Your task to perform on an android device: toggle translation in the chrome app Image 0: 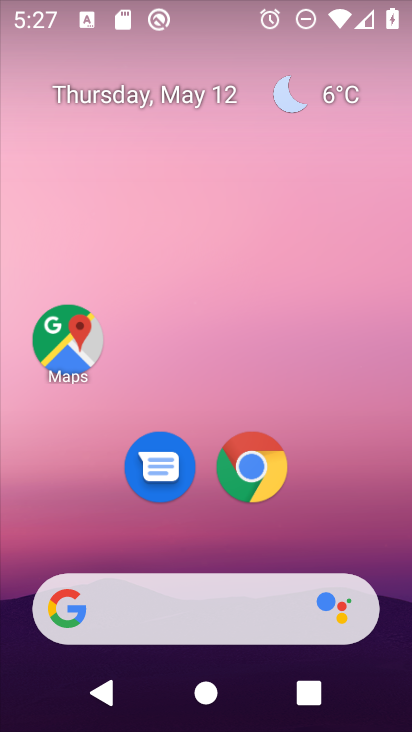
Step 0: drag from (226, 557) to (290, 168)
Your task to perform on an android device: toggle translation in the chrome app Image 1: 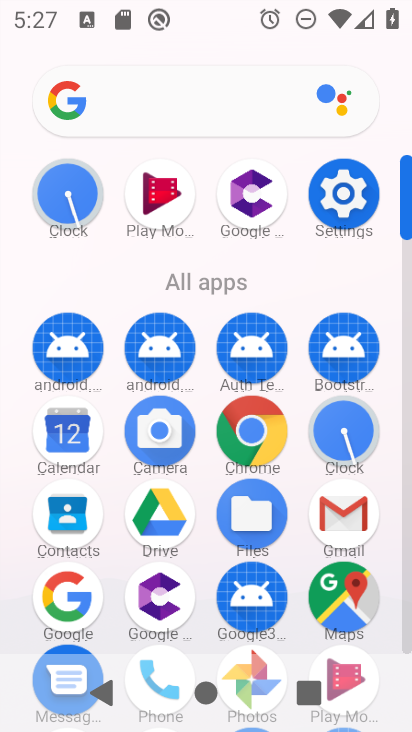
Step 1: click (250, 444)
Your task to perform on an android device: toggle translation in the chrome app Image 2: 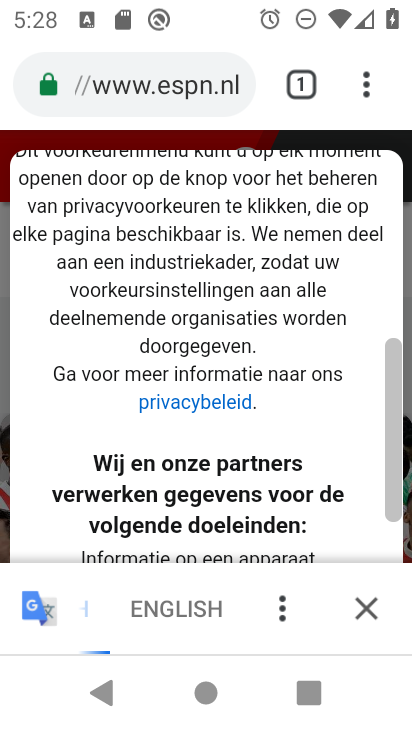
Step 2: drag from (358, 80) to (163, 540)
Your task to perform on an android device: toggle translation in the chrome app Image 3: 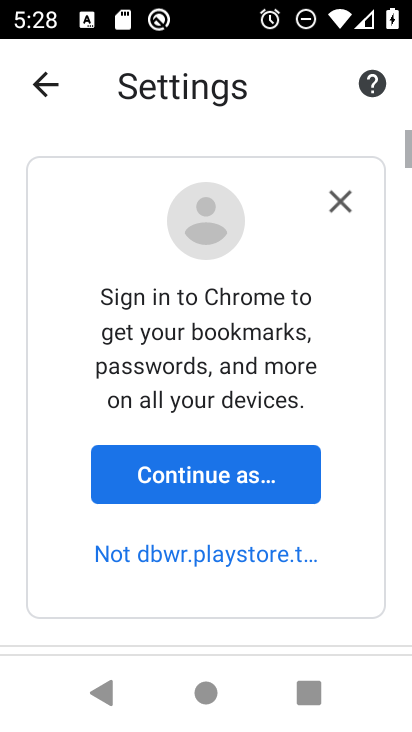
Step 3: drag from (239, 608) to (168, 100)
Your task to perform on an android device: toggle translation in the chrome app Image 4: 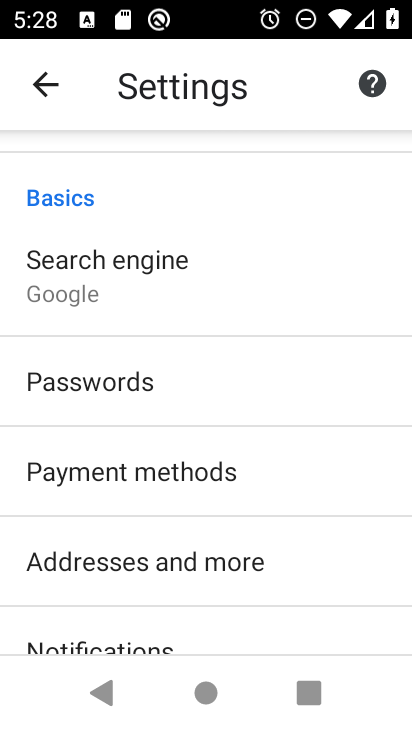
Step 4: drag from (202, 638) to (221, 225)
Your task to perform on an android device: toggle translation in the chrome app Image 5: 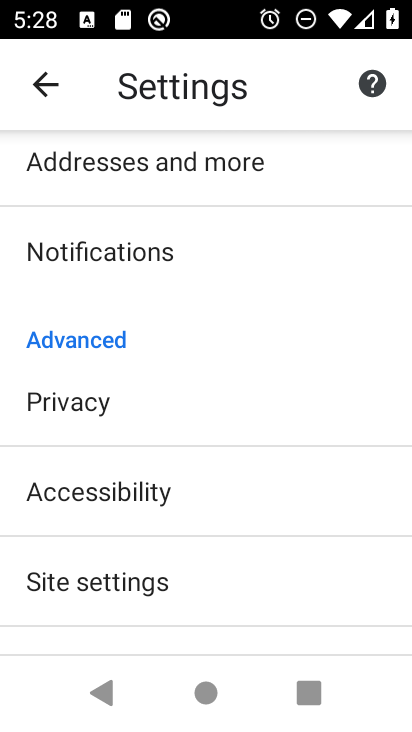
Step 5: drag from (185, 604) to (194, 334)
Your task to perform on an android device: toggle translation in the chrome app Image 6: 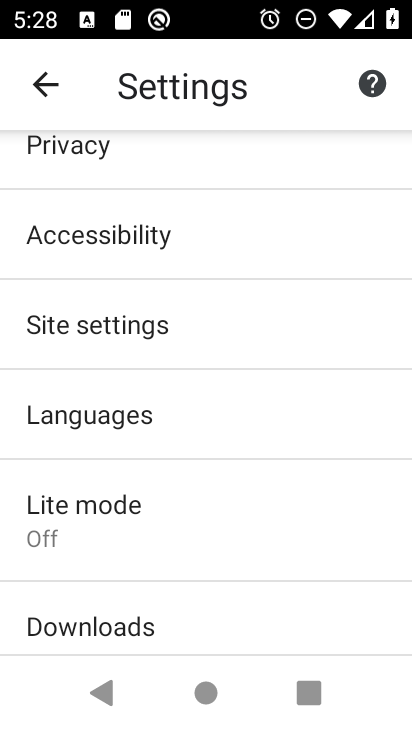
Step 6: click (137, 408)
Your task to perform on an android device: toggle translation in the chrome app Image 7: 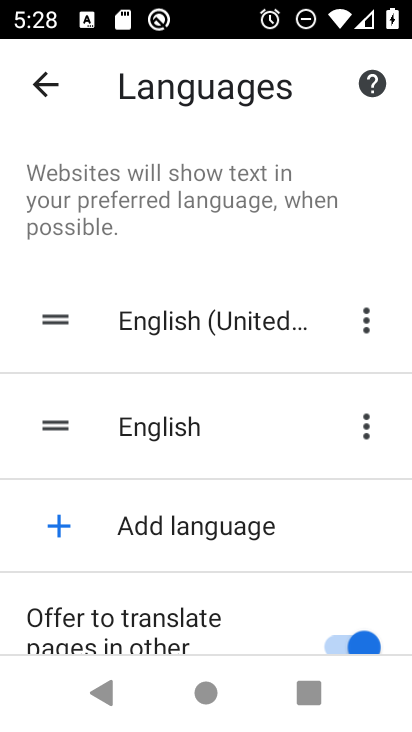
Step 7: click (339, 643)
Your task to perform on an android device: toggle translation in the chrome app Image 8: 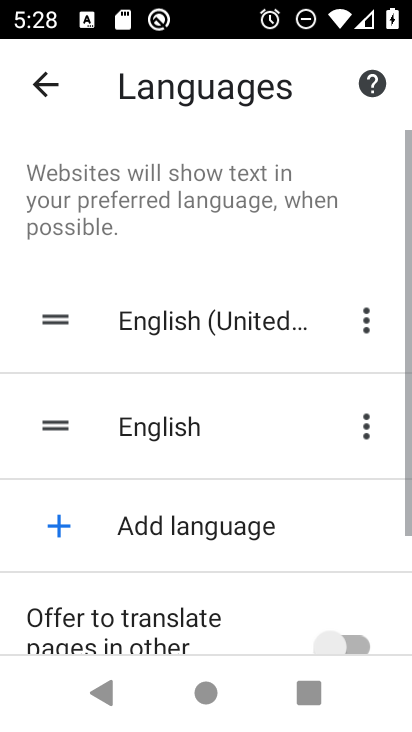
Step 8: task complete